Your task to perform on an android device: refresh tabs in the chrome app Image 0: 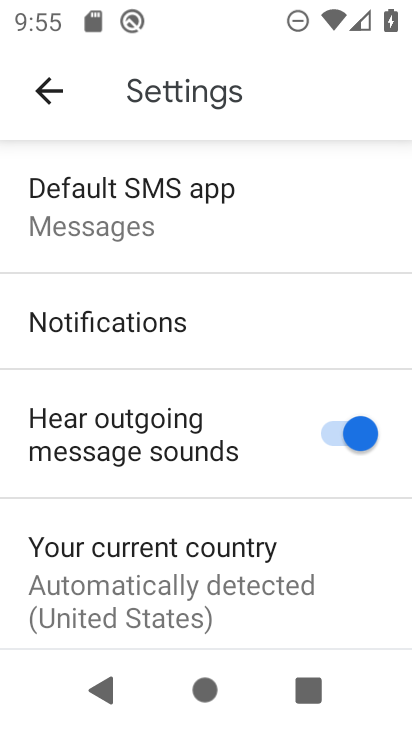
Step 0: press home button
Your task to perform on an android device: refresh tabs in the chrome app Image 1: 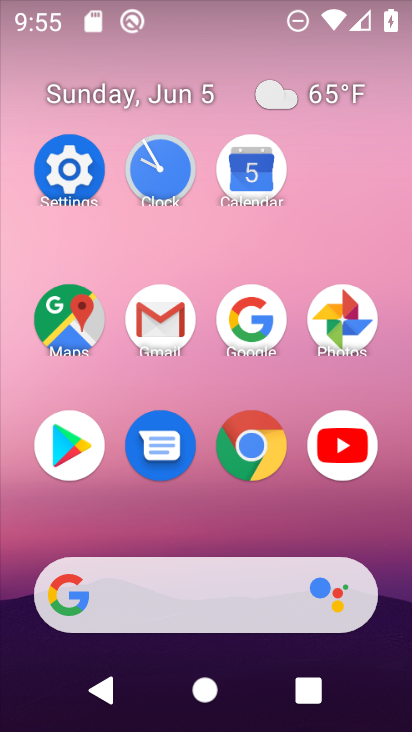
Step 1: click (228, 438)
Your task to perform on an android device: refresh tabs in the chrome app Image 2: 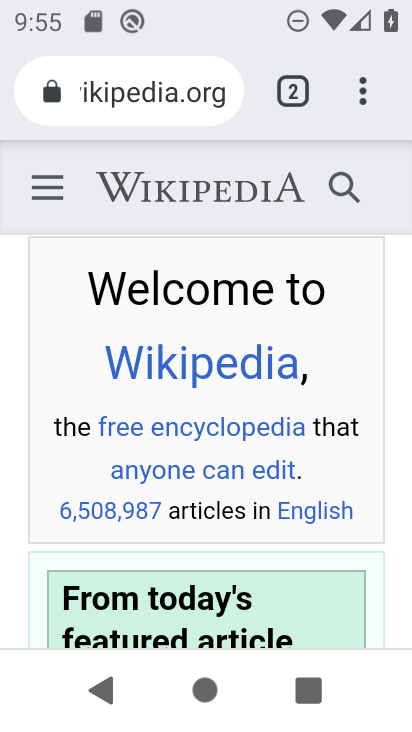
Step 2: click (355, 72)
Your task to perform on an android device: refresh tabs in the chrome app Image 3: 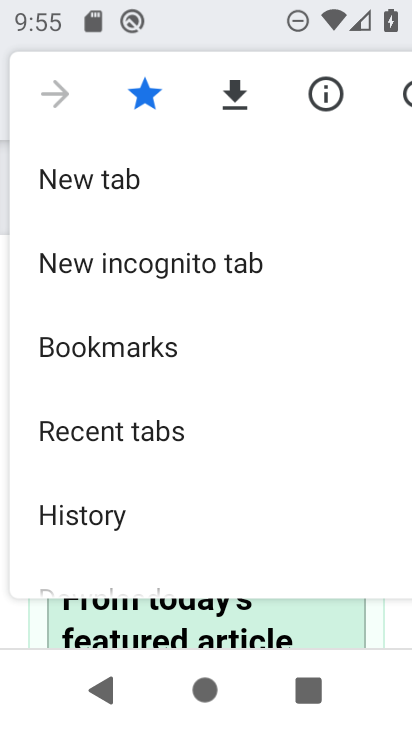
Step 3: click (411, 89)
Your task to perform on an android device: refresh tabs in the chrome app Image 4: 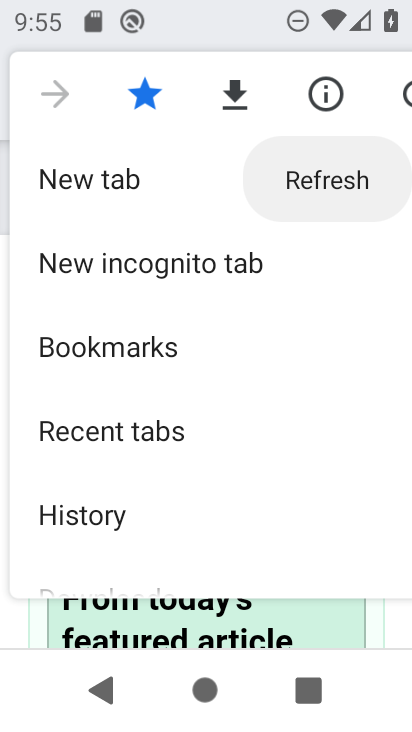
Step 4: click (408, 99)
Your task to perform on an android device: refresh tabs in the chrome app Image 5: 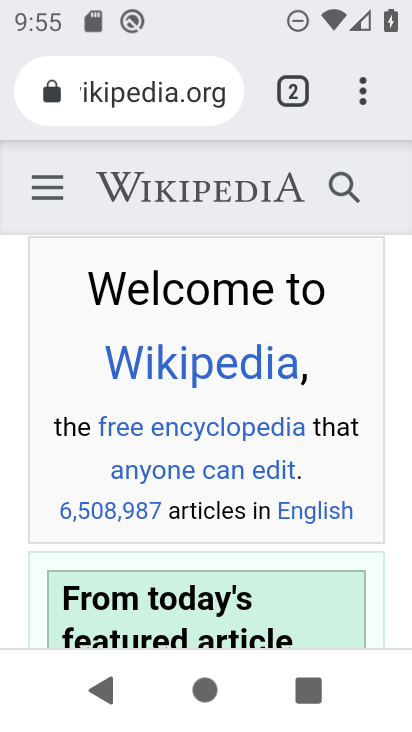
Step 5: task complete